Your task to perform on an android device: Is it going to rain this weekend? Image 0: 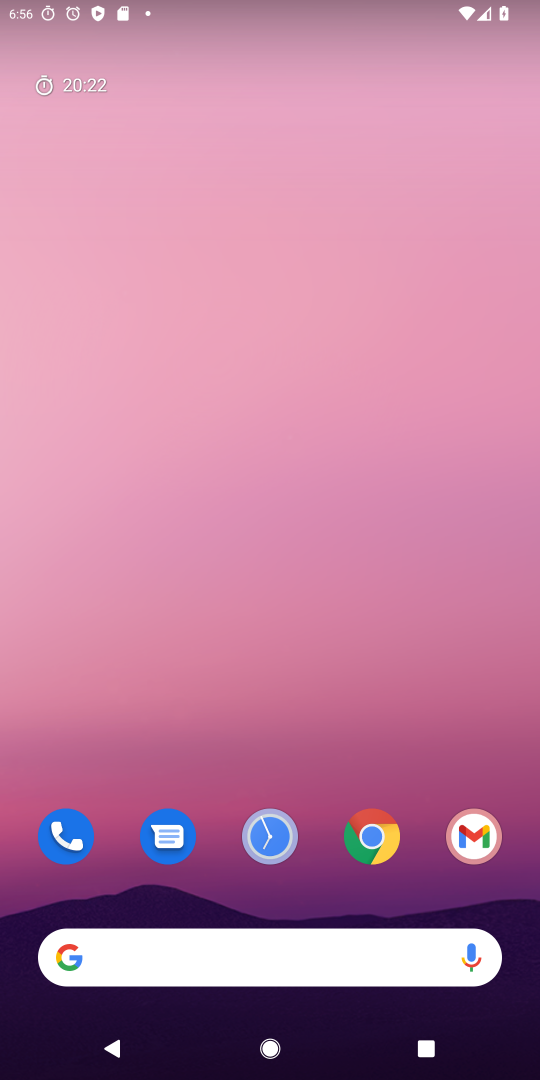
Step 0: drag from (354, 717) to (372, 24)
Your task to perform on an android device: Is it going to rain this weekend? Image 1: 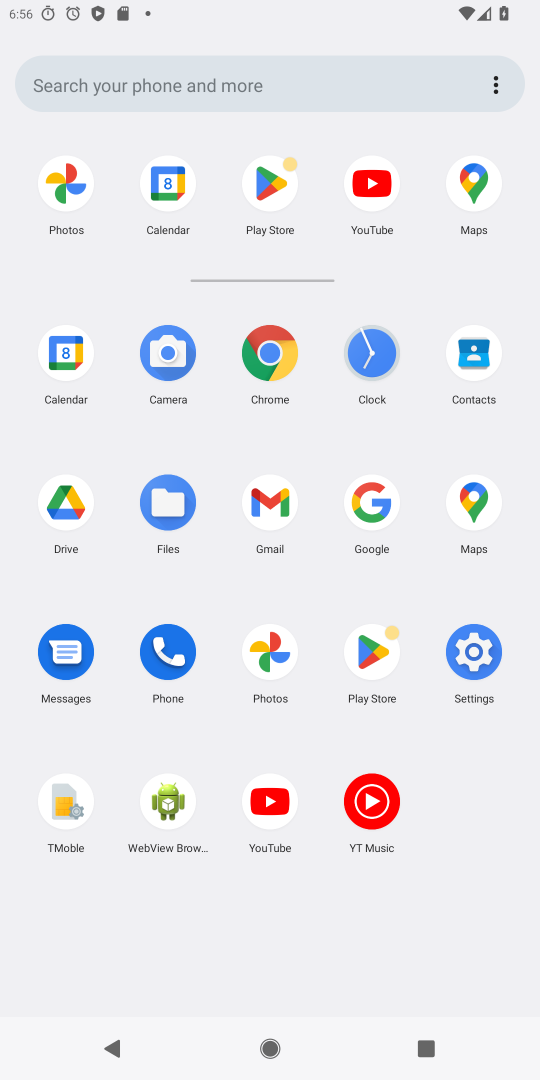
Step 1: click (279, 368)
Your task to perform on an android device: Is it going to rain this weekend? Image 2: 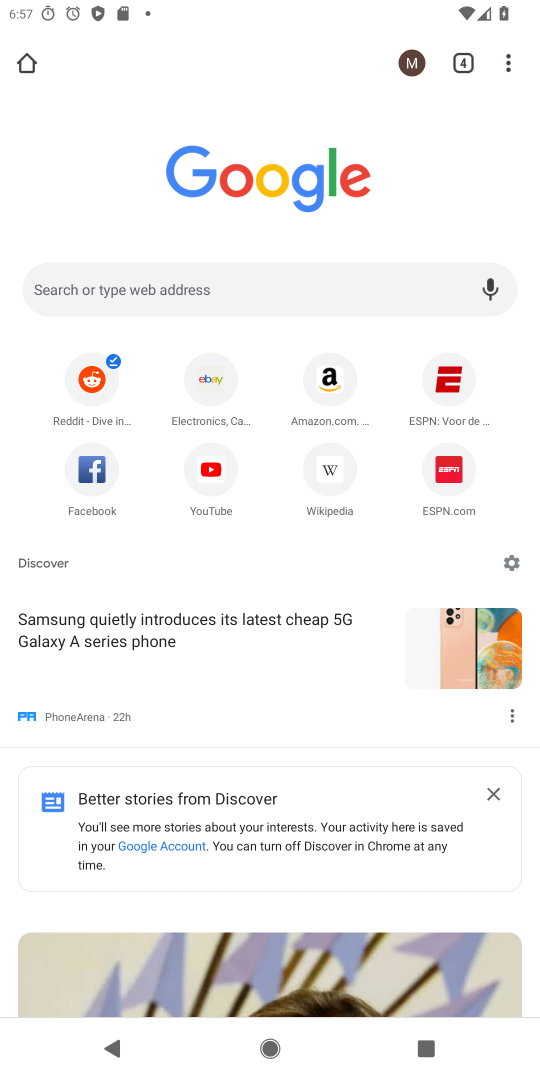
Step 2: click (361, 286)
Your task to perform on an android device: Is it going to rain this weekend? Image 3: 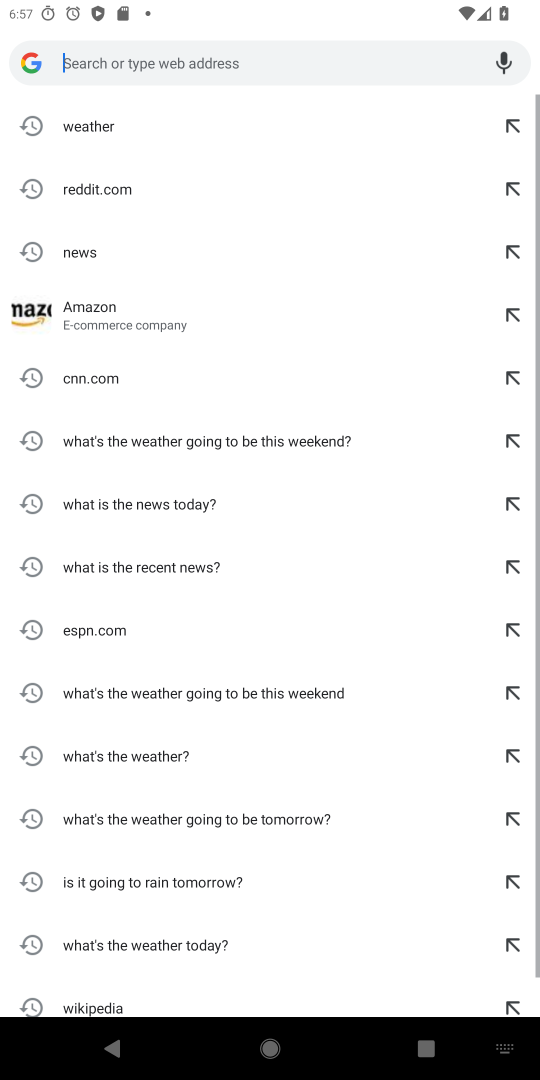
Step 3: click (159, 137)
Your task to perform on an android device: Is it going to rain this weekend? Image 4: 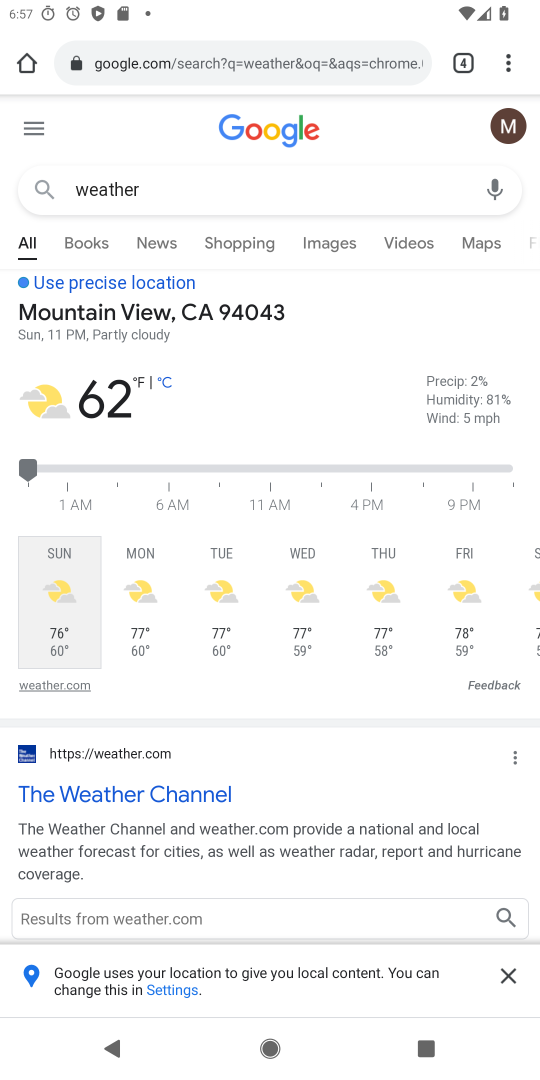
Step 4: task complete